Your task to perform on an android device: Open sound settings Image 0: 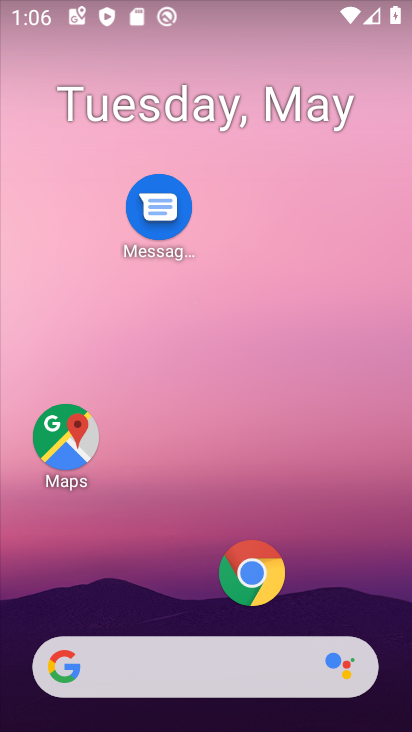
Step 0: drag from (182, 575) to (247, 103)
Your task to perform on an android device: Open sound settings Image 1: 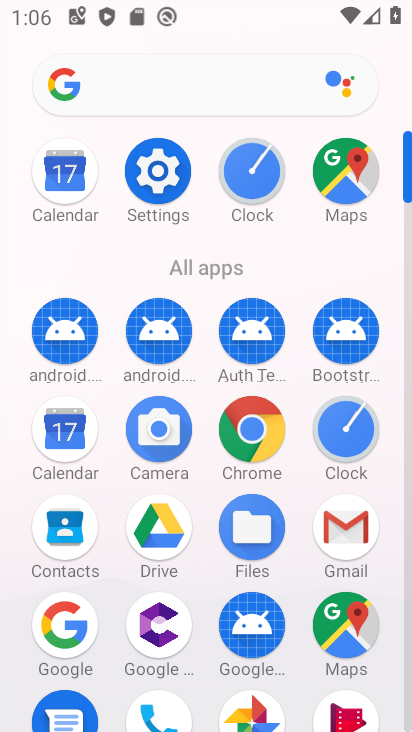
Step 1: click (162, 186)
Your task to perform on an android device: Open sound settings Image 2: 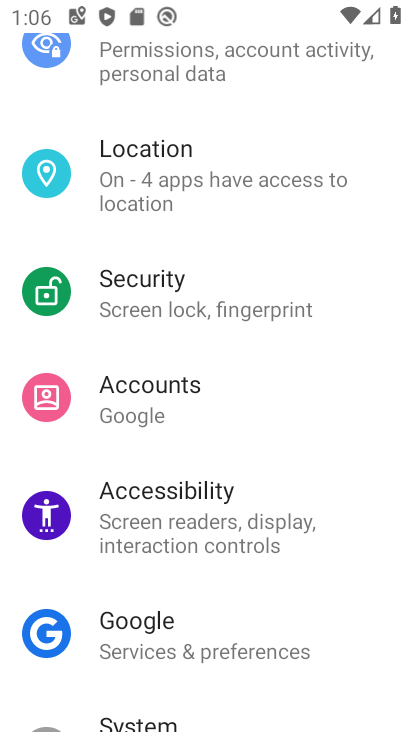
Step 2: drag from (212, 260) to (220, 621)
Your task to perform on an android device: Open sound settings Image 3: 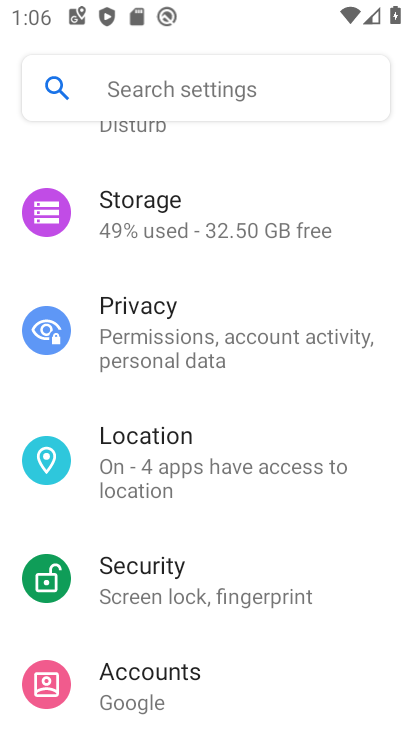
Step 3: drag from (267, 174) to (272, 585)
Your task to perform on an android device: Open sound settings Image 4: 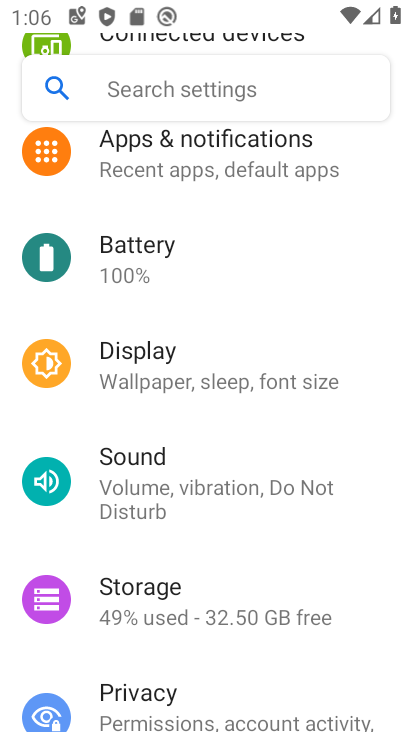
Step 4: click (151, 476)
Your task to perform on an android device: Open sound settings Image 5: 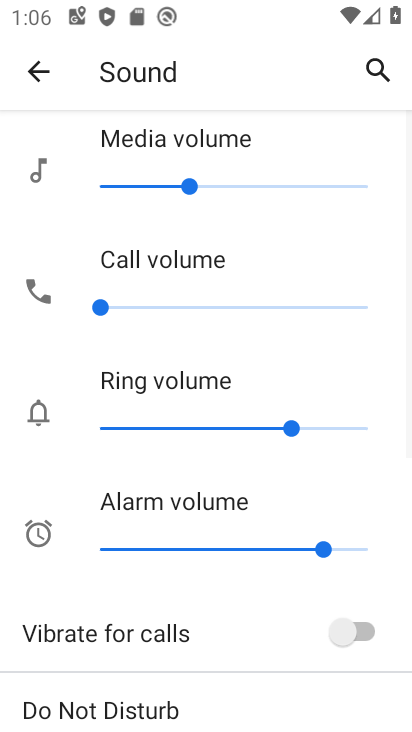
Step 5: task complete